Your task to perform on an android device: Open Google Chrome Image 0: 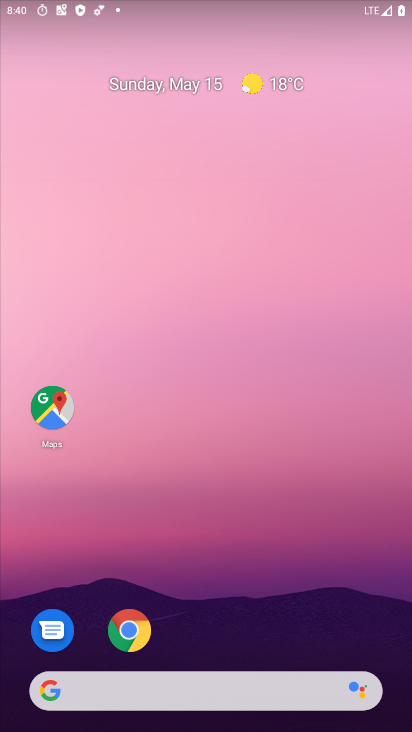
Step 0: click (404, 150)
Your task to perform on an android device: Open Google Chrome Image 1: 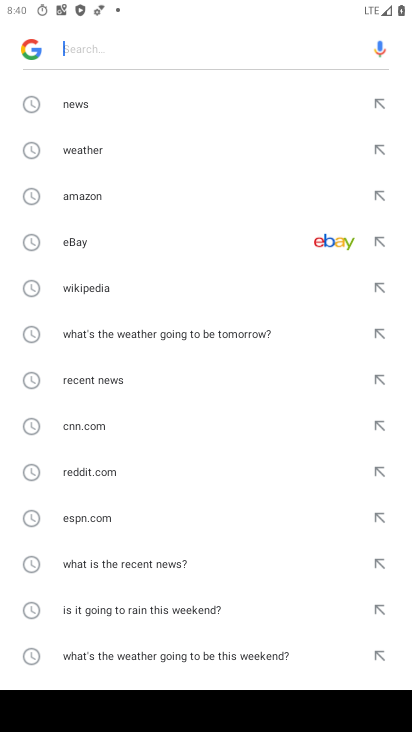
Step 1: task complete